Your task to perform on an android device: turn on priority inbox in the gmail app Image 0: 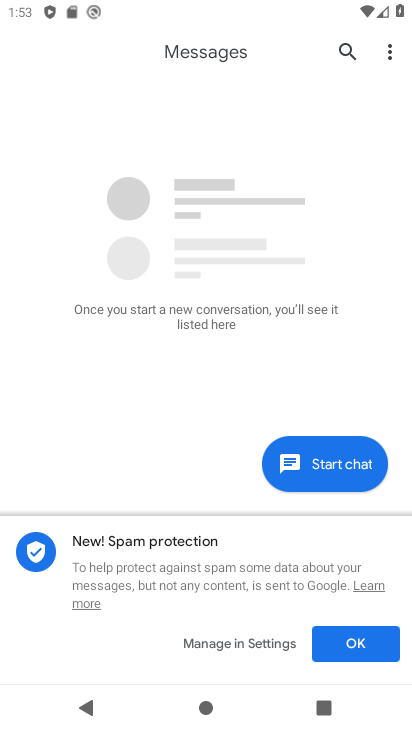
Step 0: press home button
Your task to perform on an android device: turn on priority inbox in the gmail app Image 1: 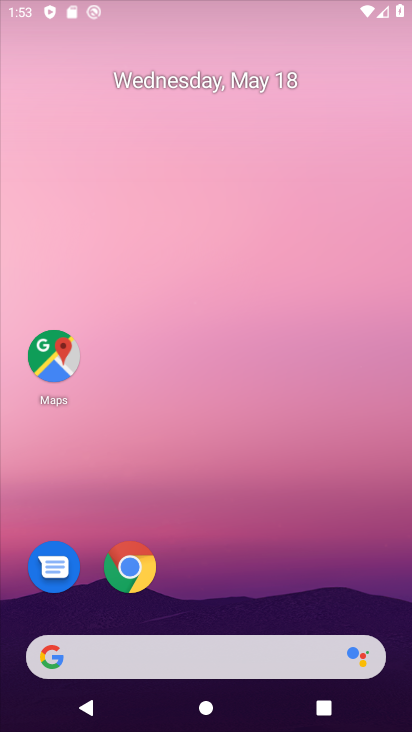
Step 1: drag from (238, 555) to (240, 172)
Your task to perform on an android device: turn on priority inbox in the gmail app Image 2: 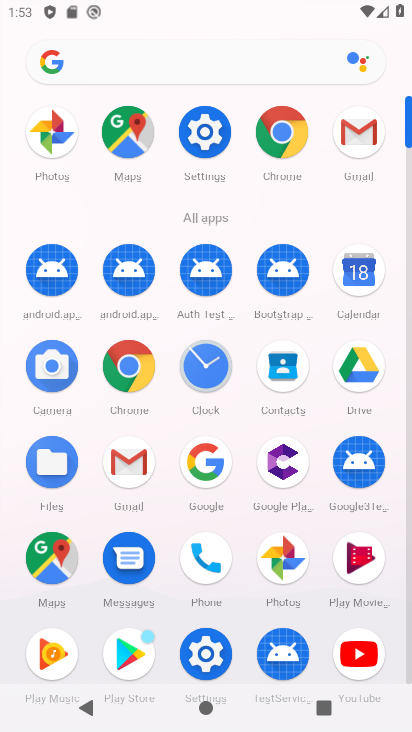
Step 2: drag from (179, 604) to (185, 484)
Your task to perform on an android device: turn on priority inbox in the gmail app Image 3: 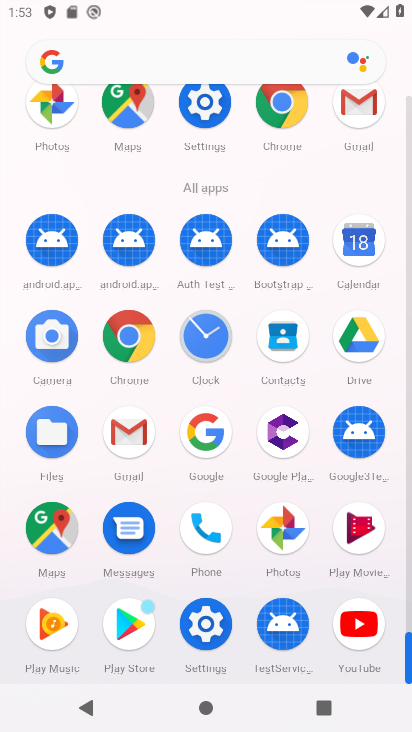
Step 3: click (120, 428)
Your task to perform on an android device: turn on priority inbox in the gmail app Image 4: 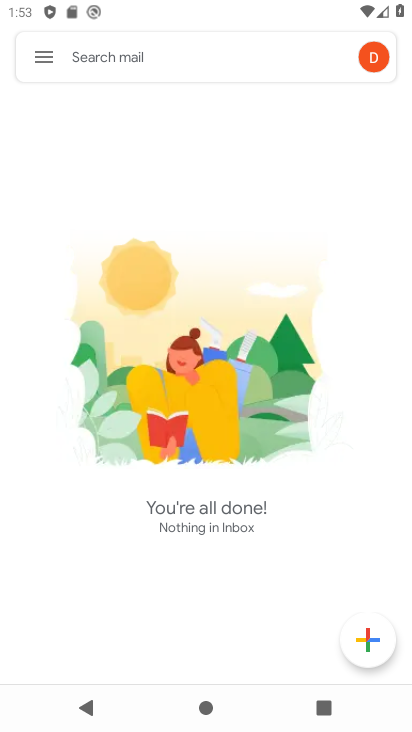
Step 4: click (37, 58)
Your task to perform on an android device: turn on priority inbox in the gmail app Image 5: 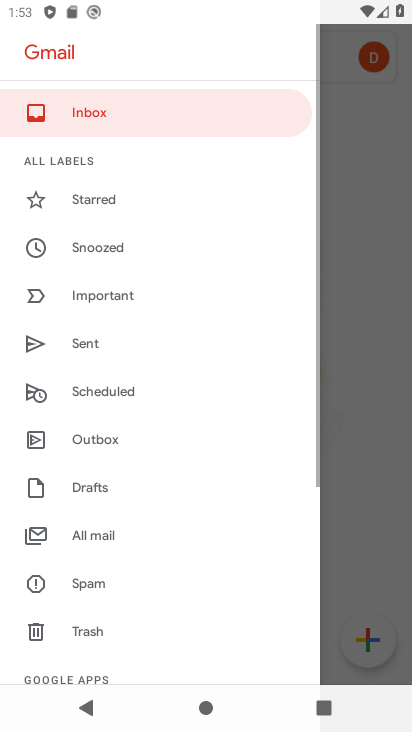
Step 5: drag from (141, 570) to (168, 291)
Your task to perform on an android device: turn on priority inbox in the gmail app Image 6: 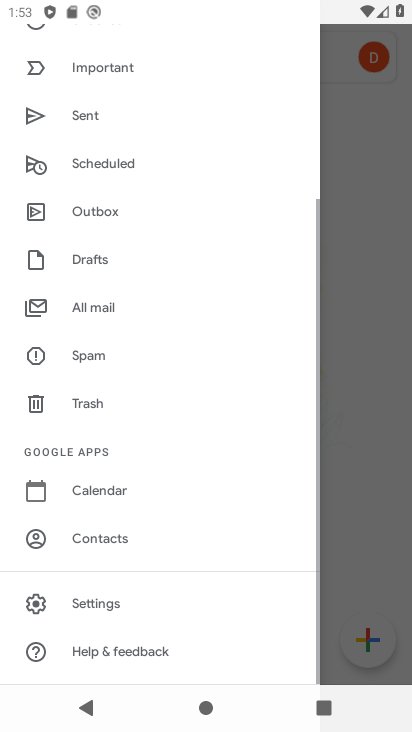
Step 6: click (109, 596)
Your task to perform on an android device: turn on priority inbox in the gmail app Image 7: 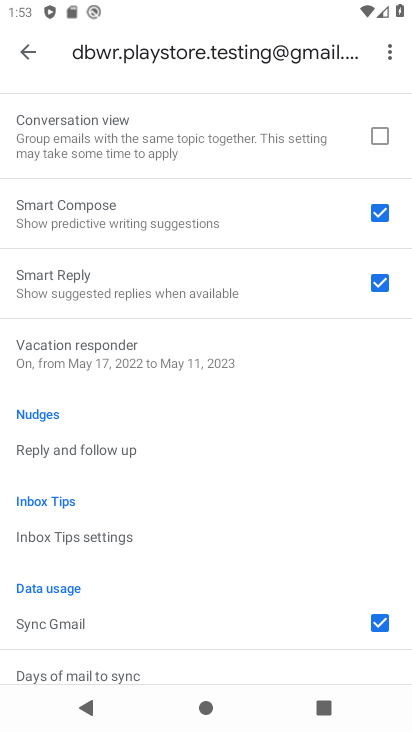
Step 7: drag from (128, 568) to (163, 435)
Your task to perform on an android device: turn on priority inbox in the gmail app Image 8: 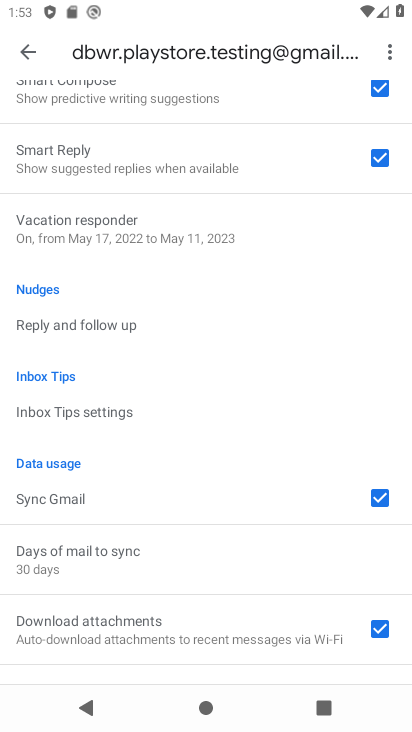
Step 8: drag from (111, 289) to (113, 508)
Your task to perform on an android device: turn on priority inbox in the gmail app Image 9: 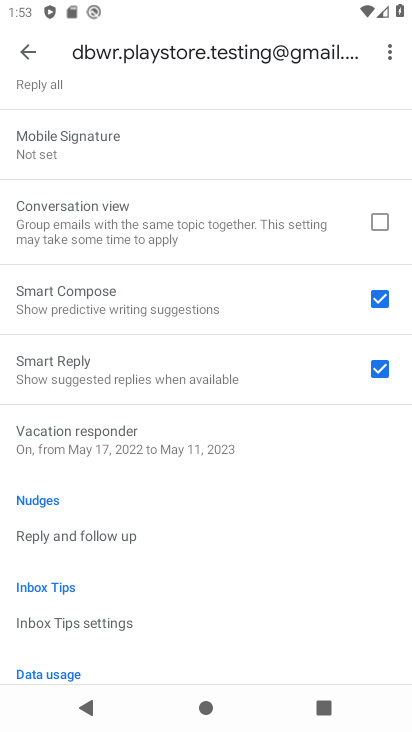
Step 9: drag from (201, 228) to (191, 640)
Your task to perform on an android device: turn on priority inbox in the gmail app Image 10: 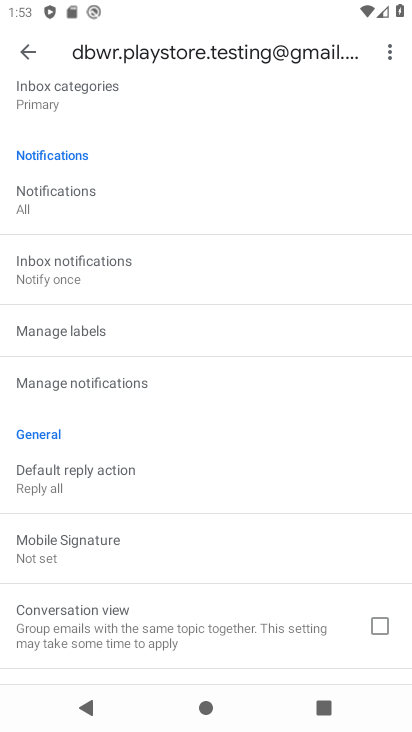
Step 10: click (84, 267)
Your task to perform on an android device: turn on priority inbox in the gmail app Image 11: 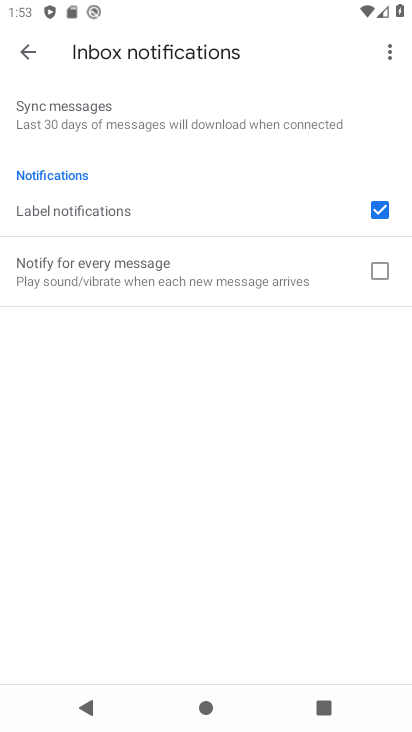
Step 11: click (34, 50)
Your task to perform on an android device: turn on priority inbox in the gmail app Image 12: 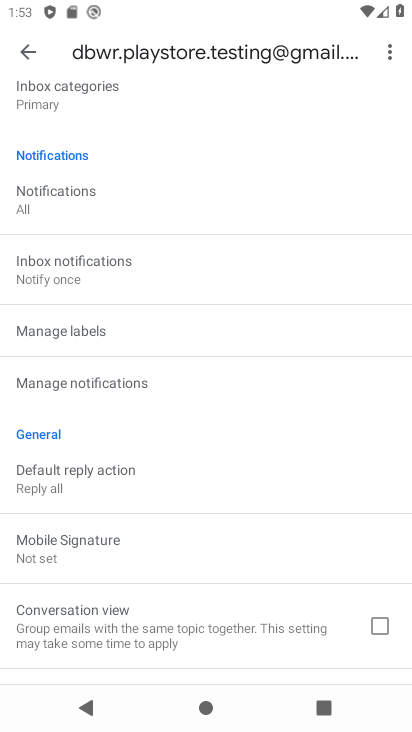
Step 12: click (106, 80)
Your task to perform on an android device: turn on priority inbox in the gmail app Image 13: 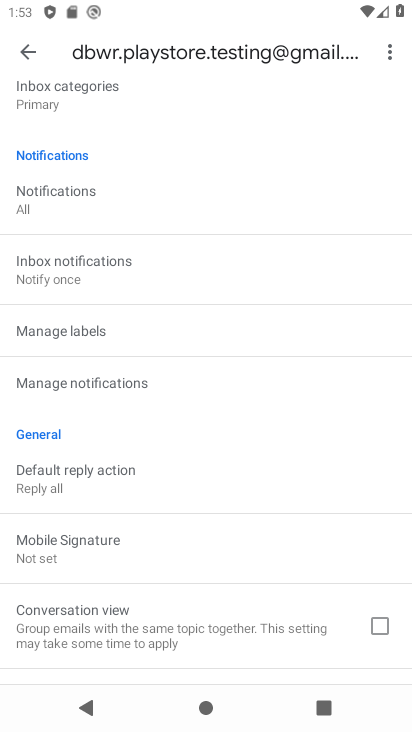
Step 13: drag from (91, 111) to (114, 301)
Your task to perform on an android device: turn on priority inbox in the gmail app Image 14: 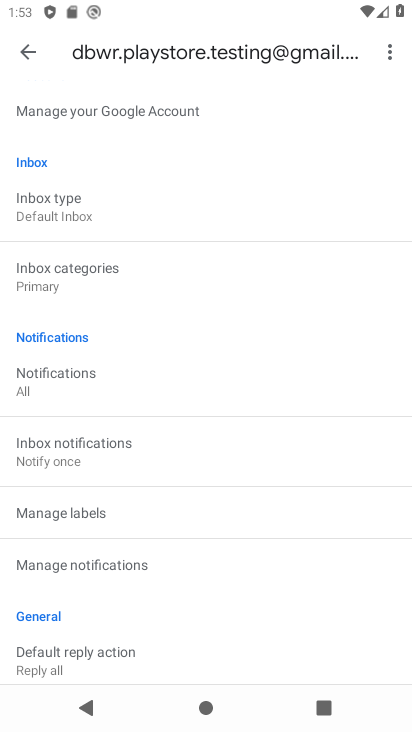
Step 14: click (52, 213)
Your task to perform on an android device: turn on priority inbox in the gmail app Image 15: 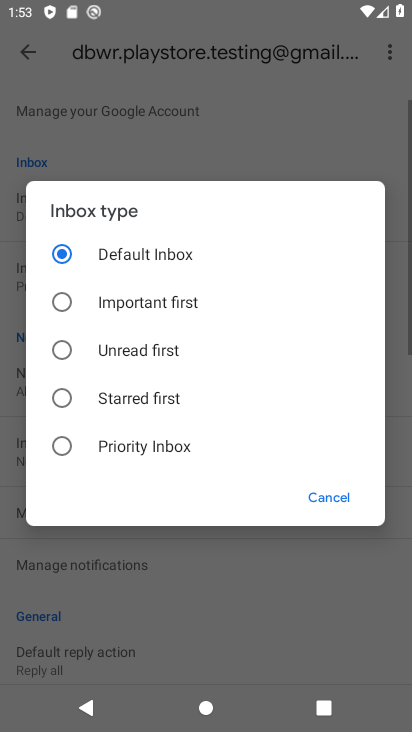
Step 15: click (108, 437)
Your task to perform on an android device: turn on priority inbox in the gmail app Image 16: 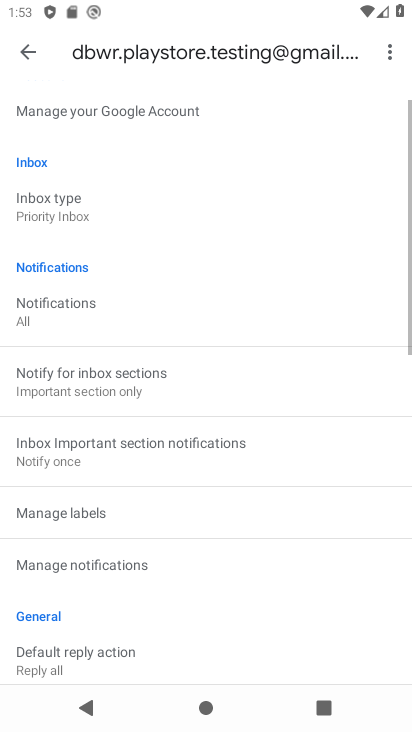
Step 16: task complete